Your task to perform on an android device: Go to Yahoo.com Image 0: 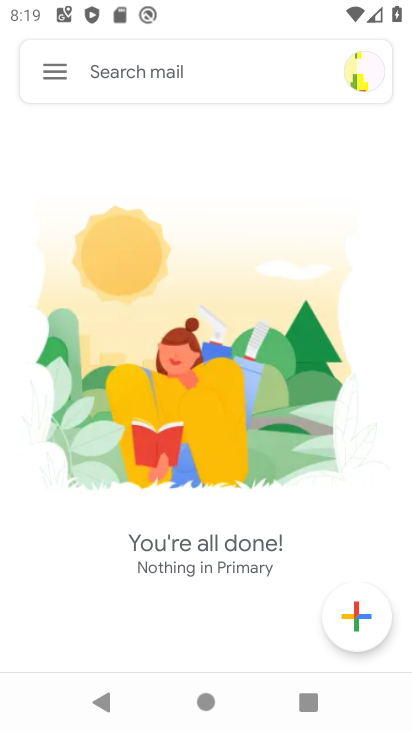
Step 0: press home button
Your task to perform on an android device: Go to Yahoo.com Image 1: 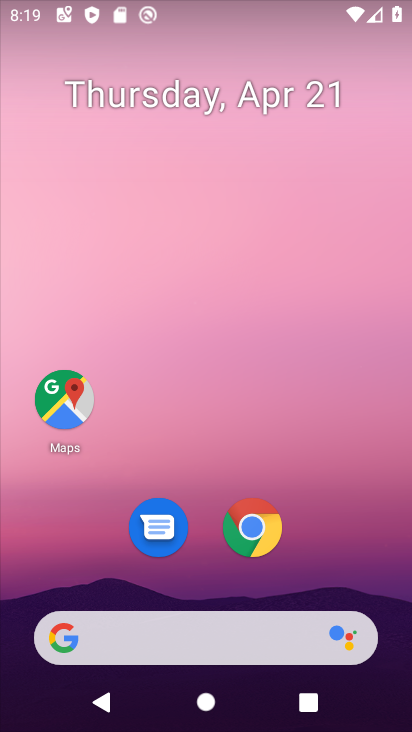
Step 1: drag from (336, 532) to (389, 166)
Your task to perform on an android device: Go to Yahoo.com Image 2: 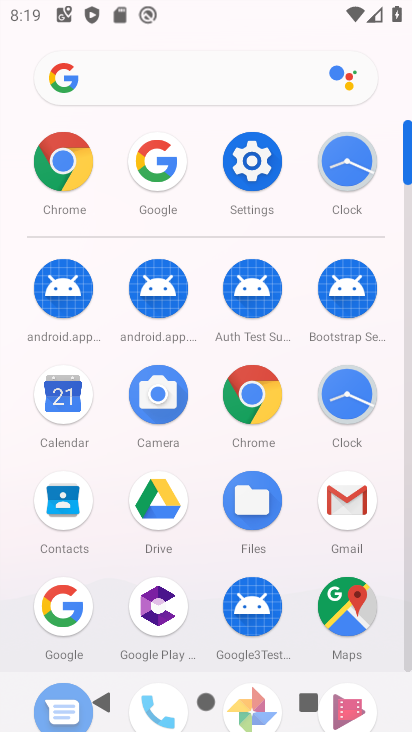
Step 2: click (261, 402)
Your task to perform on an android device: Go to Yahoo.com Image 3: 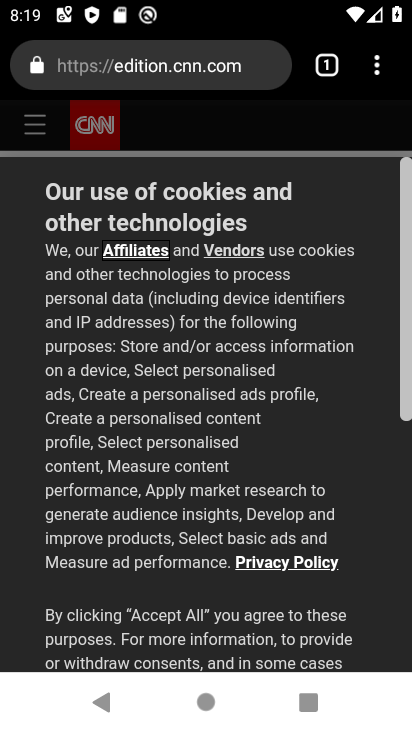
Step 3: click (209, 67)
Your task to perform on an android device: Go to Yahoo.com Image 4: 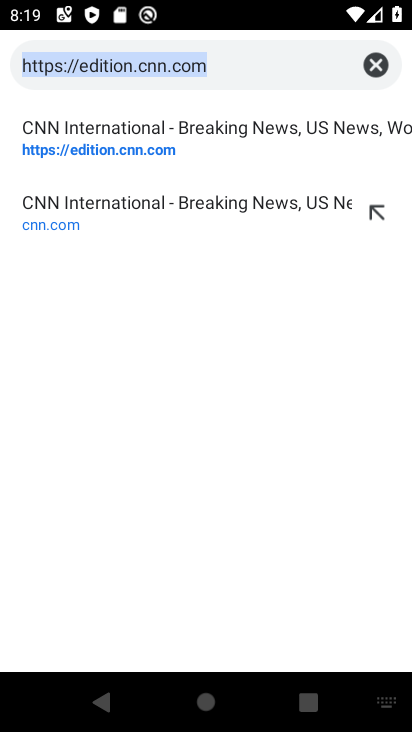
Step 4: click (371, 64)
Your task to perform on an android device: Go to Yahoo.com Image 5: 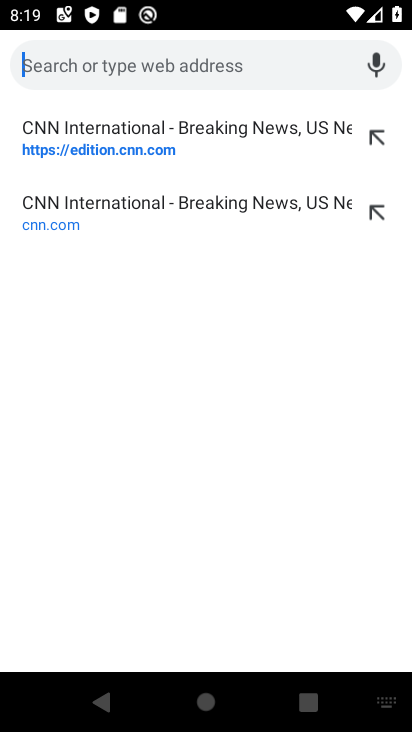
Step 5: click (302, 60)
Your task to perform on an android device: Go to Yahoo.com Image 6: 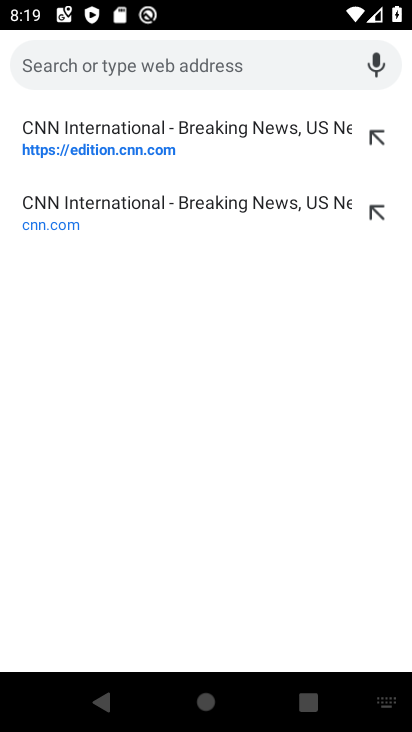
Step 6: type "yahoo.com"
Your task to perform on an android device: Go to Yahoo.com Image 7: 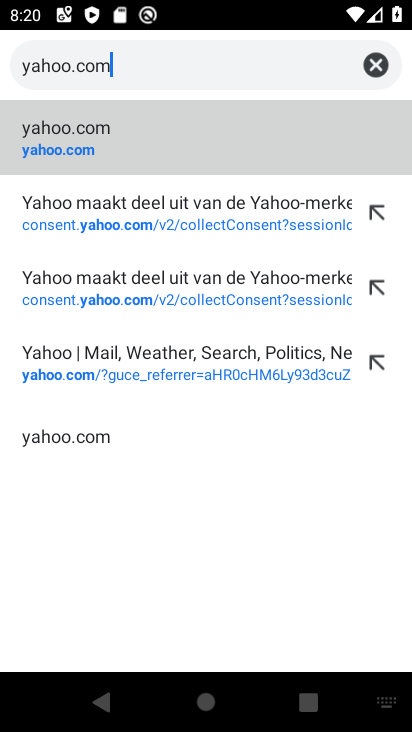
Step 7: click (284, 136)
Your task to perform on an android device: Go to Yahoo.com Image 8: 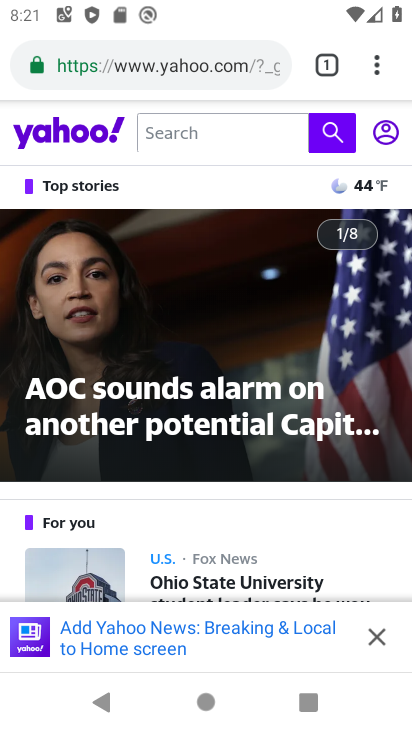
Step 8: task complete